Your task to perform on an android device: Search for Italian restaurants on Maps Image 0: 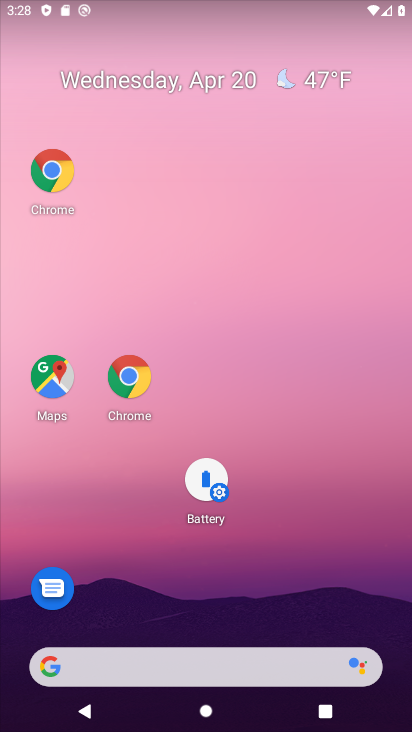
Step 0: drag from (324, 623) to (392, 173)
Your task to perform on an android device: Search for Italian restaurants on Maps Image 1: 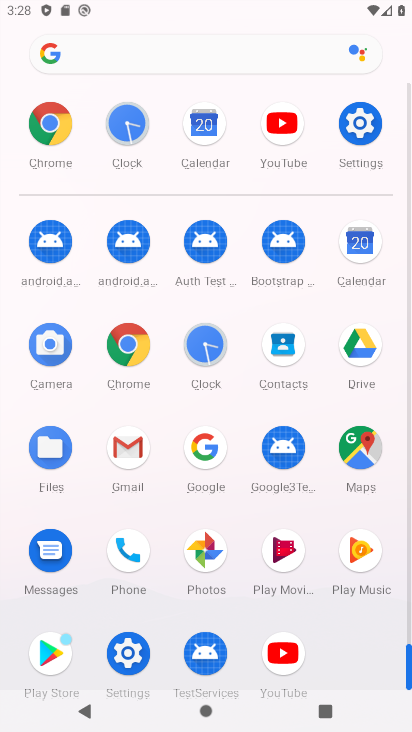
Step 1: click (360, 453)
Your task to perform on an android device: Search for Italian restaurants on Maps Image 2: 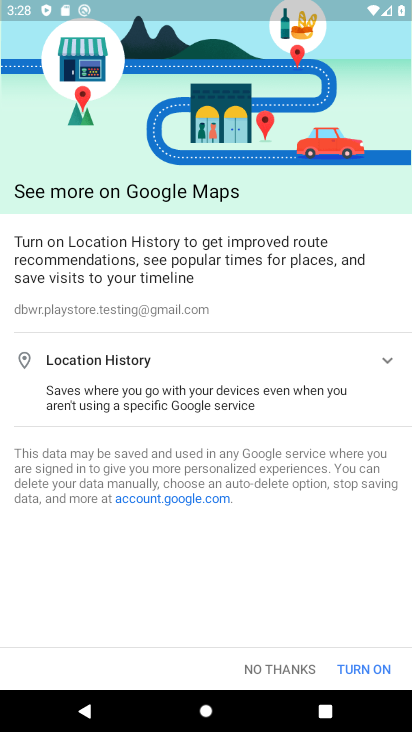
Step 2: click (292, 668)
Your task to perform on an android device: Search for Italian restaurants on Maps Image 3: 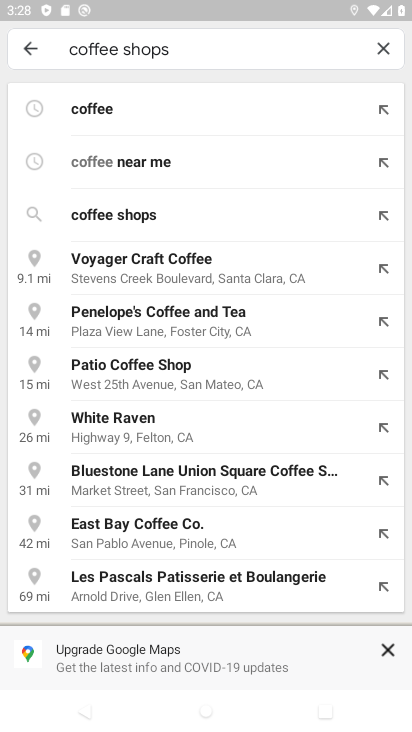
Step 3: click (387, 53)
Your task to perform on an android device: Search for Italian restaurants on Maps Image 4: 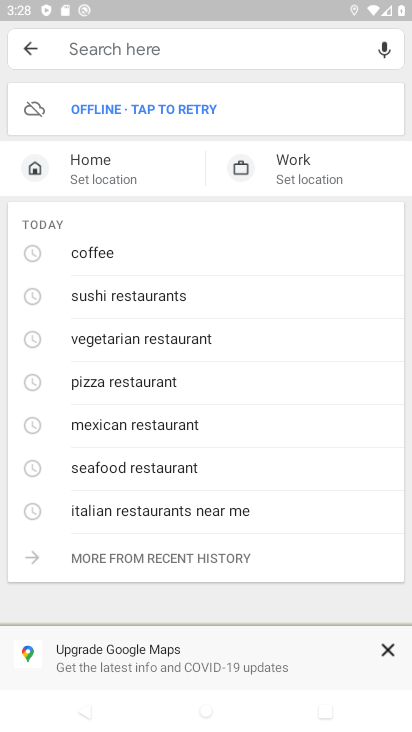
Step 4: click (306, 42)
Your task to perform on an android device: Search for Italian restaurants on Maps Image 5: 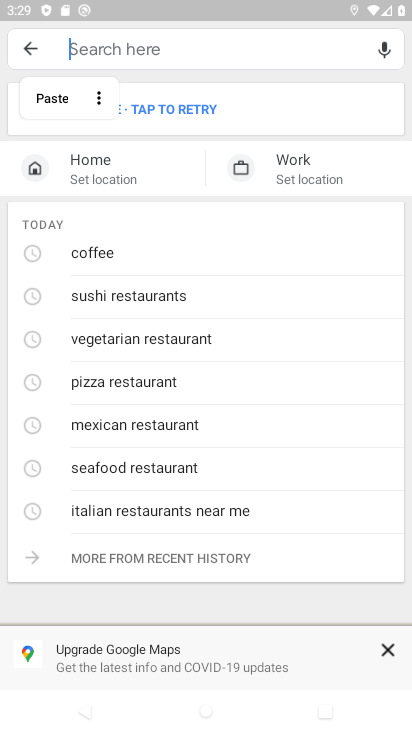
Step 5: type "italian restaurant"
Your task to perform on an android device: Search for Italian restaurants on Maps Image 6: 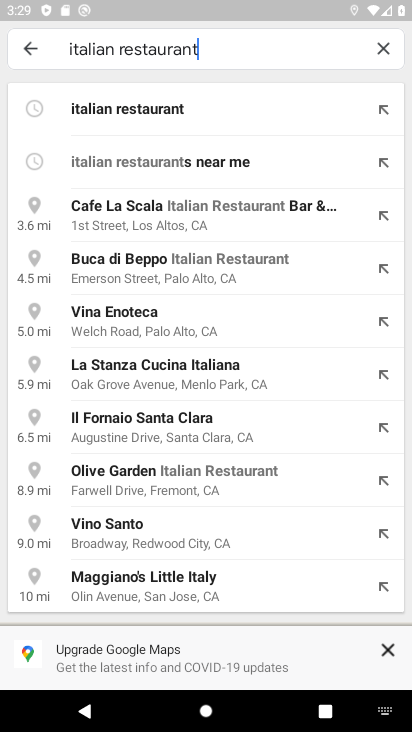
Step 6: click (196, 113)
Your task to perform on an android device: Search for Italian restaurants on Maps Image 7: 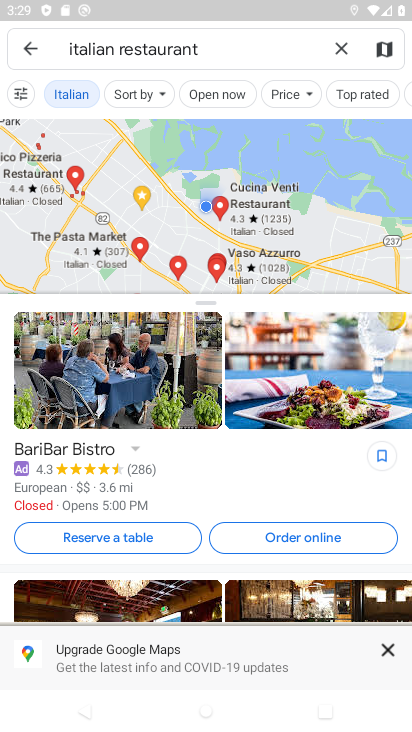
Step 7: task complete